Your task to perform on an android device: check the backup settings in the google photos Image 0: 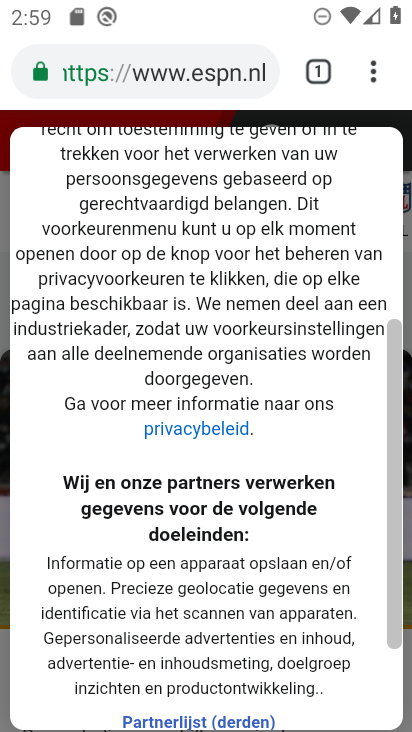
Step 0: press home button
Your task to perform on an android device: check the backup settings in the google photos Image 1: 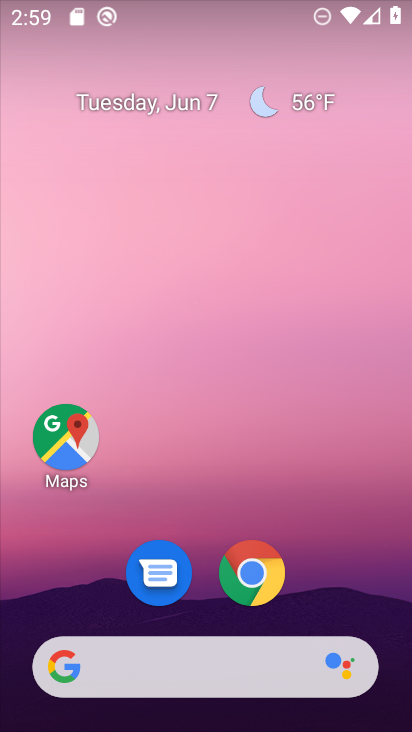
Step 1: drag from (345, 613) to (354, 27)
Your task to perform on an android device: check the backup settings in the google photos Image 2: 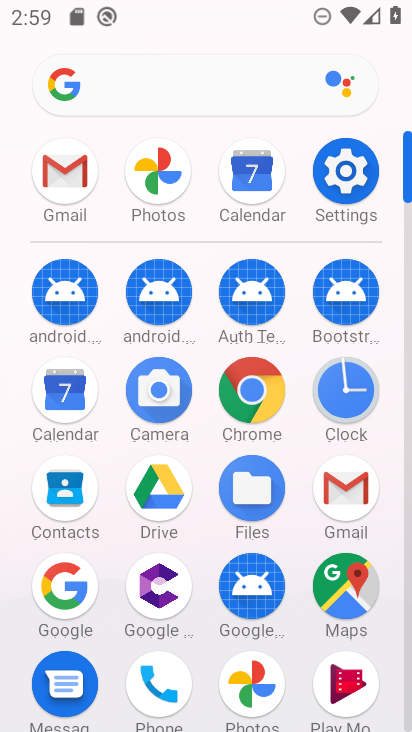
Step 2: click (164, 174)
Your task to perform on an android device: check the backup settings in the google photos Image 3: 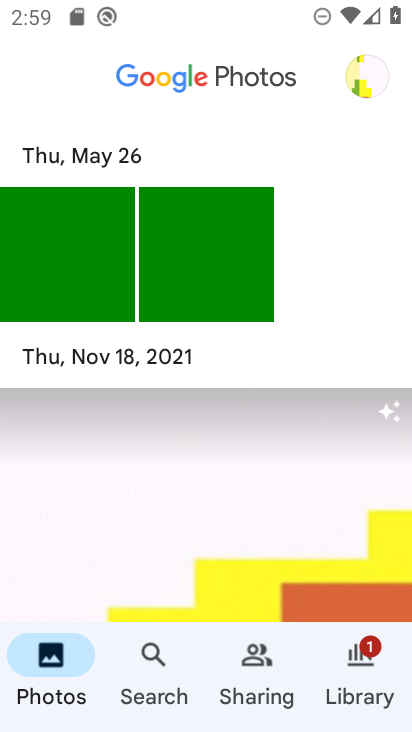
Step 3: click (366, 70)
Your task to perform on an android device: check the backup settings in the google photos Image 4: 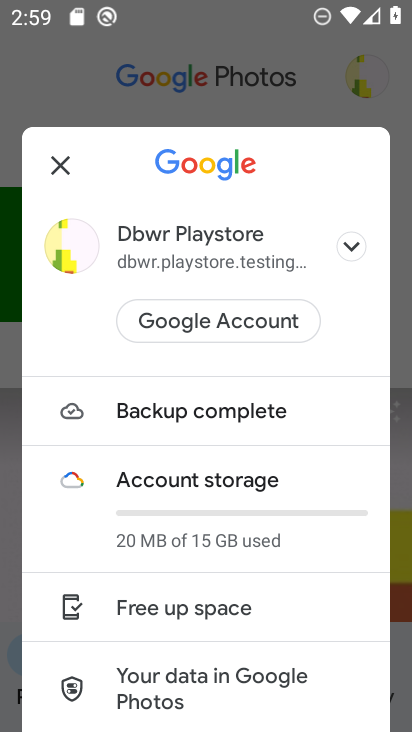
Step 4: drag from (248, 637) to (258, 246)
Your task to perform on an android device: check the backup settings in the google photos Image 5: 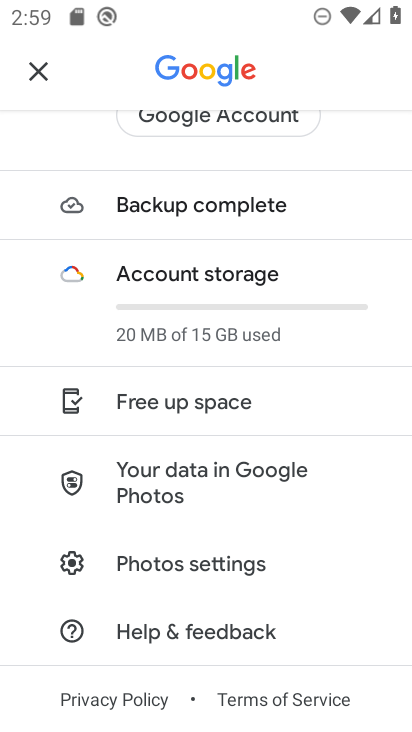
Step 5: click (194, 573)
Your task to perform on an android device: check the backup settings in the google photos Image 6: 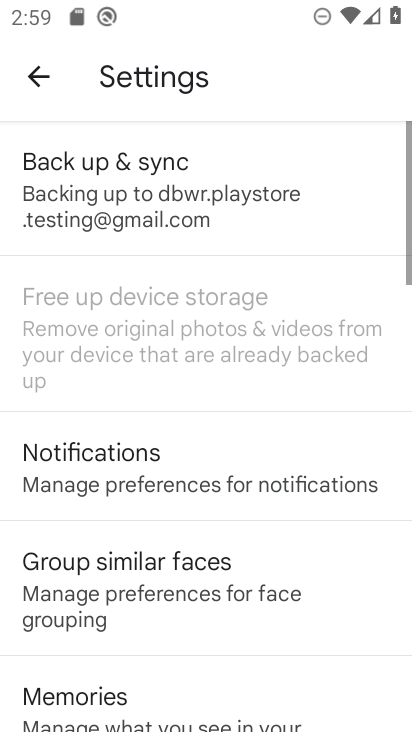
Step 6: click (77, 224)
Your task to perform on an android device: check the backup settings in the google photos Image 7: 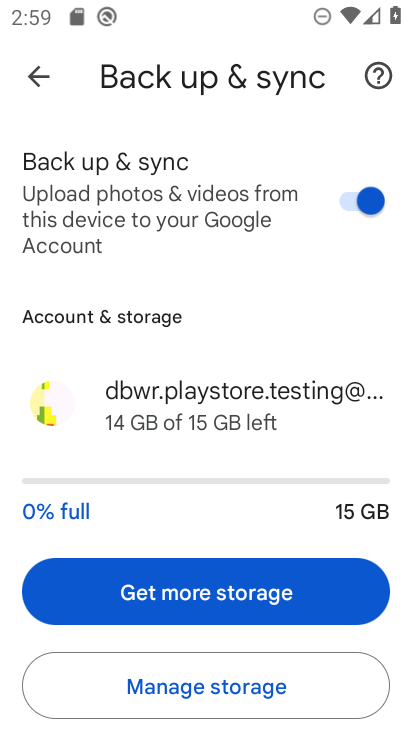
Step 7: task complete